Your task to perform on an android device: When is my next meeting? Image 0: 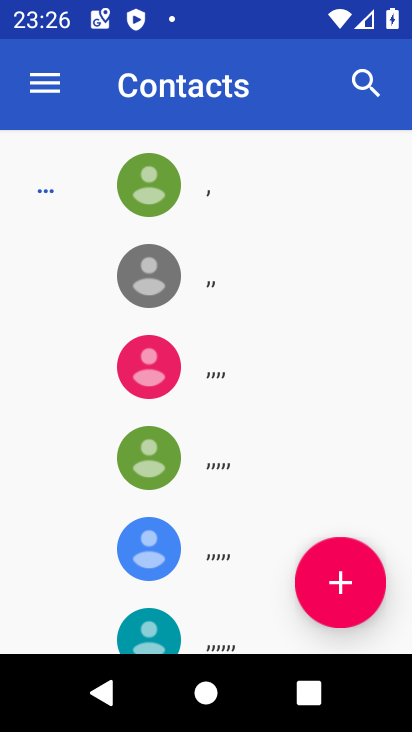
Step 0: press home button
Your task to perform on an android device: When is my next meeting? Image 1: 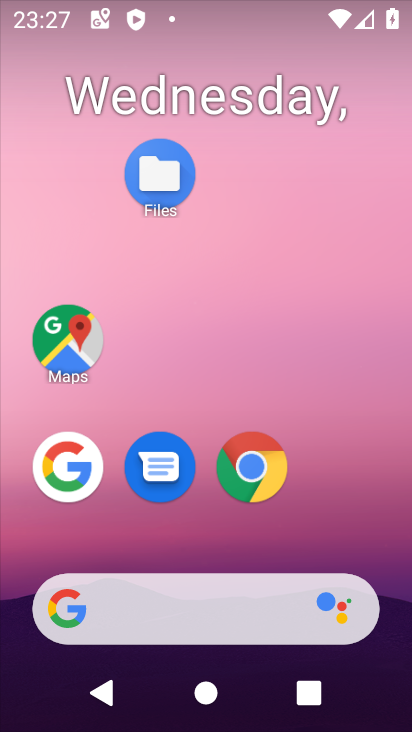
Step 1: drag from (184, 557) to (183, 96)
Your task to perform on an android device: When is my next meeting? Image 2: 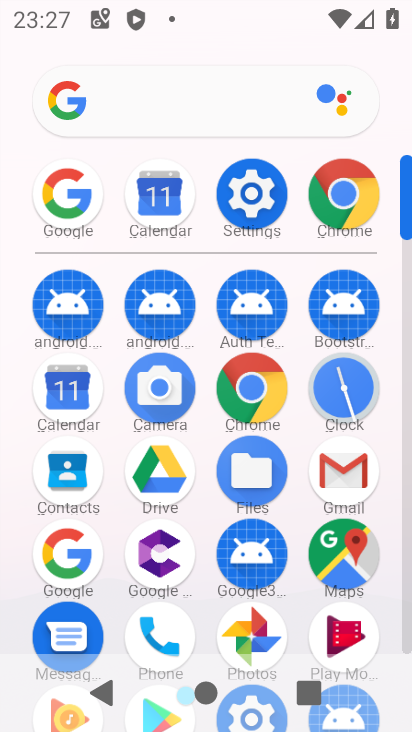
Step 2: click (169, 196)
Your task to perform on an android device: When is my next meeting? Image 3: 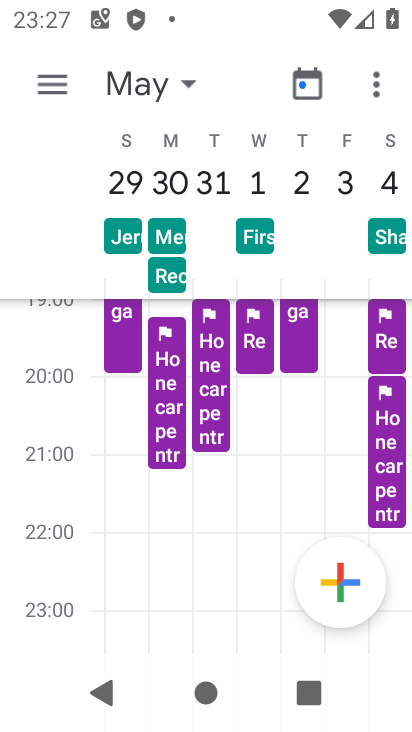
Step 3: click (309, 76)
Your task to perform on an android device: When is my next meeting? Image 4: 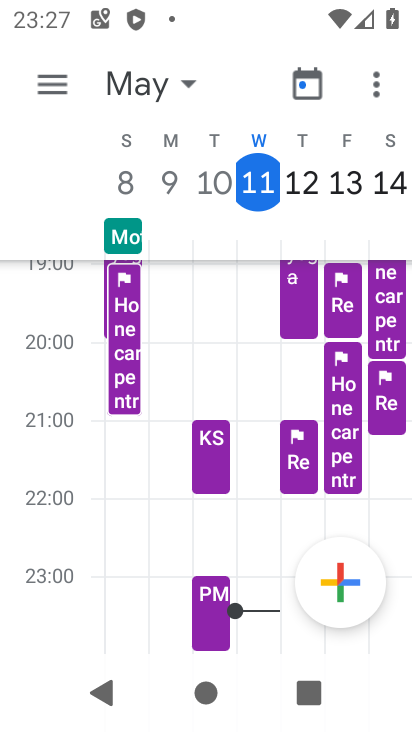
Step 4: task complete